Your task to perform on an android device: Open privacy settings Image 0: 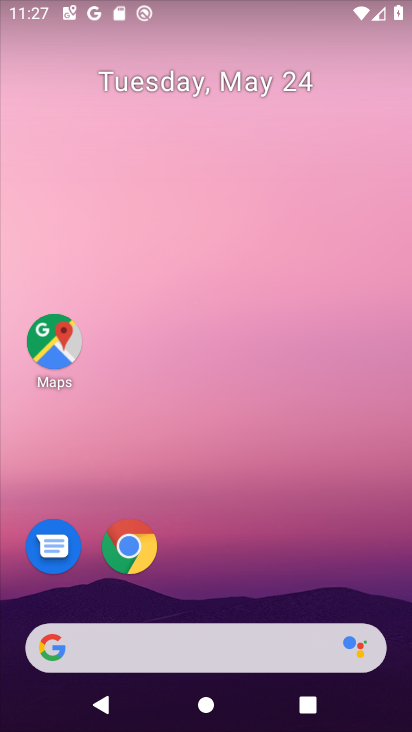
Step 0: click (147, 546)
Your task to perform on an android device: Open privacy settings Image 1: 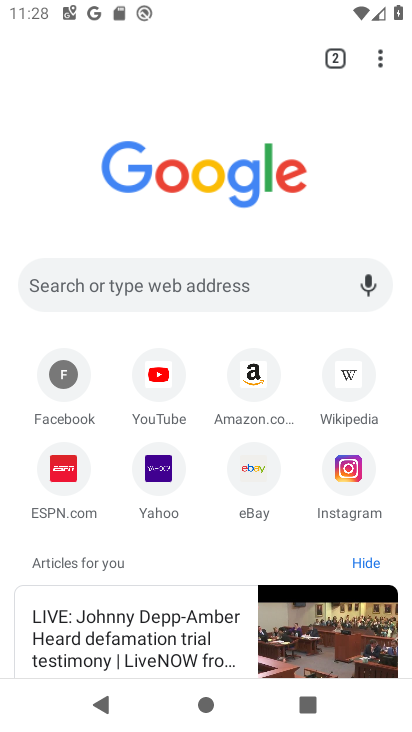
Step 1: click (382, 62)
Your task to perform on an android device: Open privacy settings Image 2: 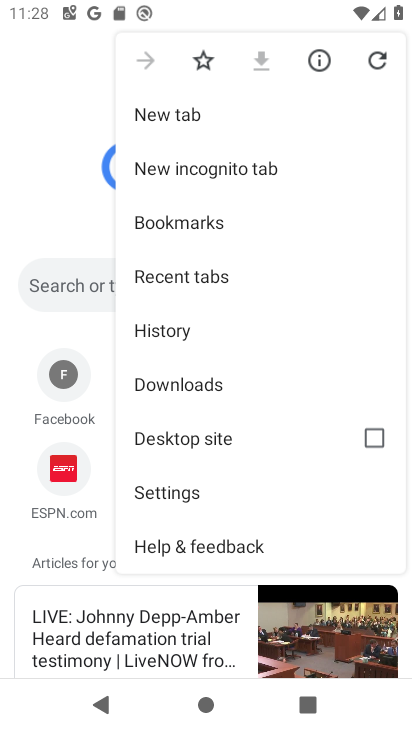
Step 2: click (187, 491)
Your task to perform on an android device: Open privacy settings Image 3: 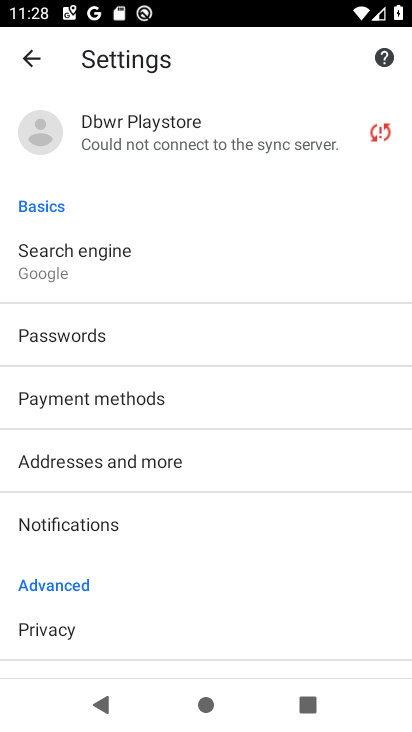
Step 3: click (72, 629)
Your task to perform on an android device: Open privacy settings Image 4: 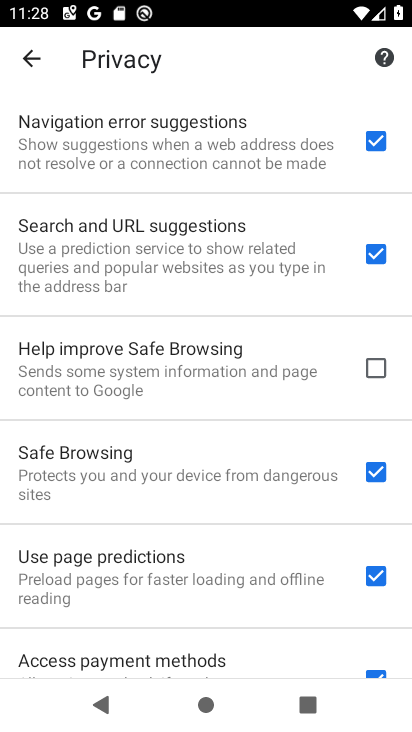
Step 4: task complete